Your task to perform on an android device: Go to wifi settings Image 0: 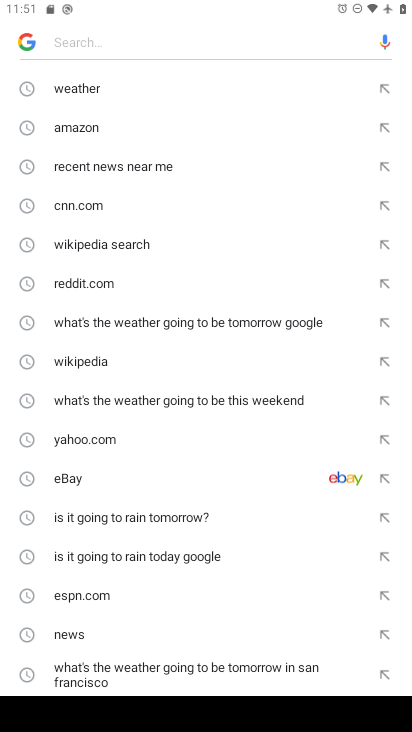
Step 0: press home button
Your task to perform on an android device: Go to wifi settings Image 1: 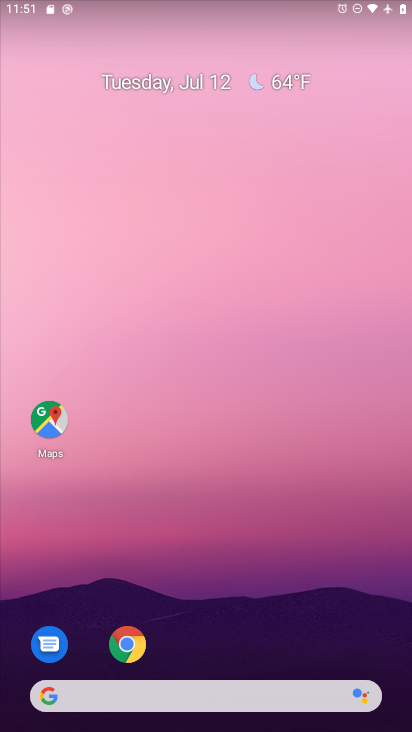
Step 1: drag from (253, 625) to (263, 201)
Your task to perform on an android device: Go to wifi settings Image 2: 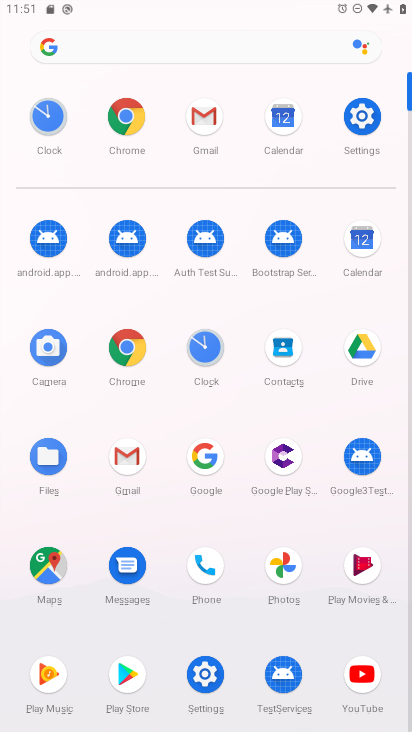
Step 2: click (364, 152)
Your task to perform on an android device: Go to wifi settings Image 3: 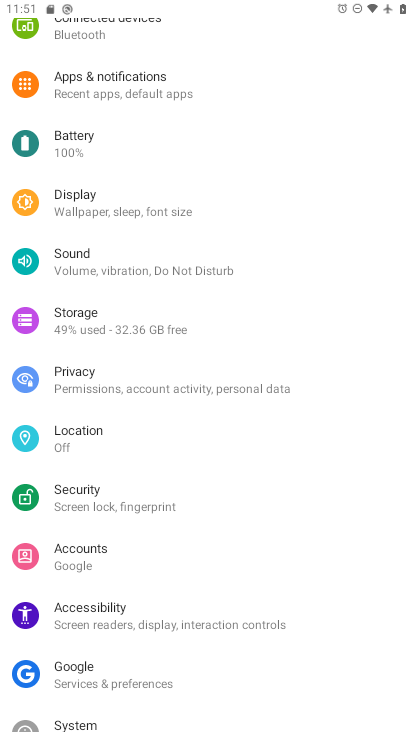
Step 3: drag from (271, 205) to (359, 710)
Your task to perform on an android device: Go to wifi settings Image 4: 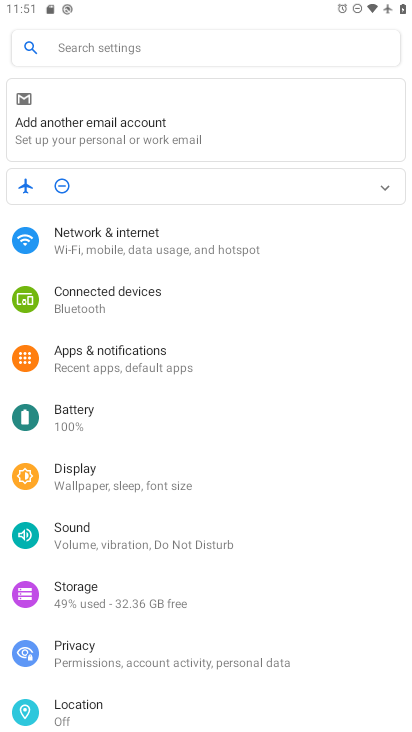
Step 4: click (235, 258)
Your task to perform on an android device: Go to wifi settings Image 5: 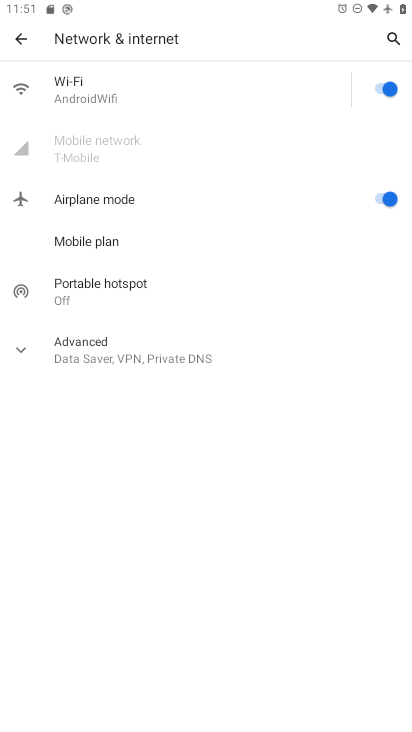
Step 5: task complete